Your task to perform on an android device: Open privacy settings Image 0: 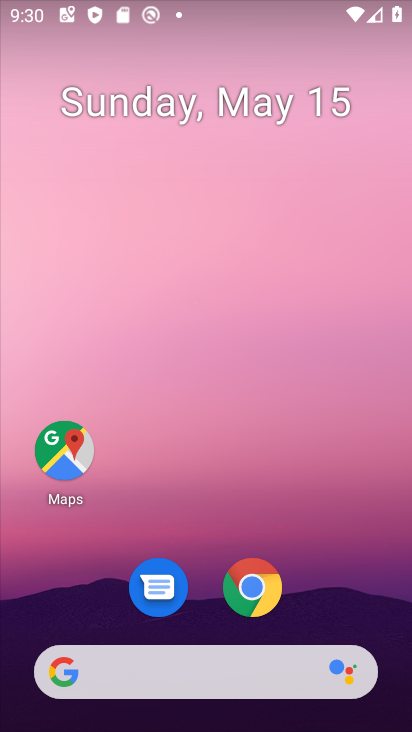
Step 0: drag from (387, 650) to (299, 46)
Your task to perform on an android device: Open privacy settings Image 1: 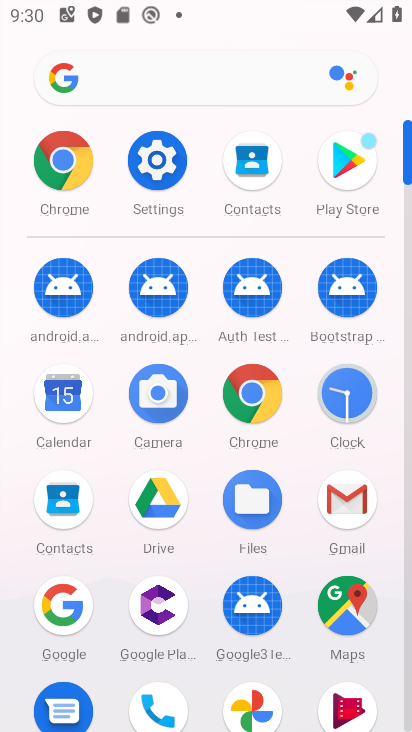
Step 1: click (153, 175)
Your task to perform on an android device: Open privacy settings Image 2: 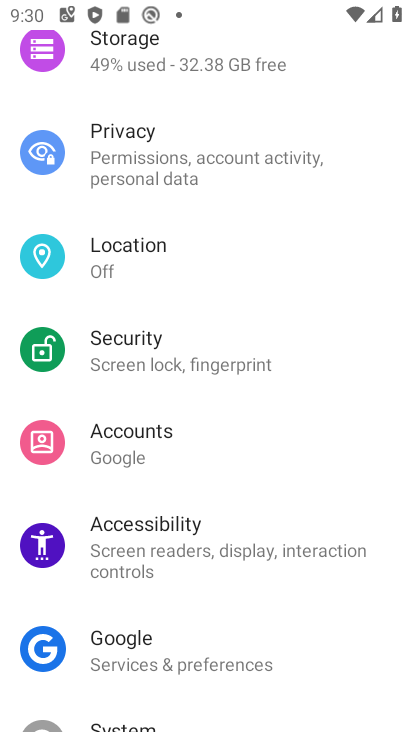
Step 2: click (151, 160)
Your task to perform on an android device: Open privacy settings Image 3: 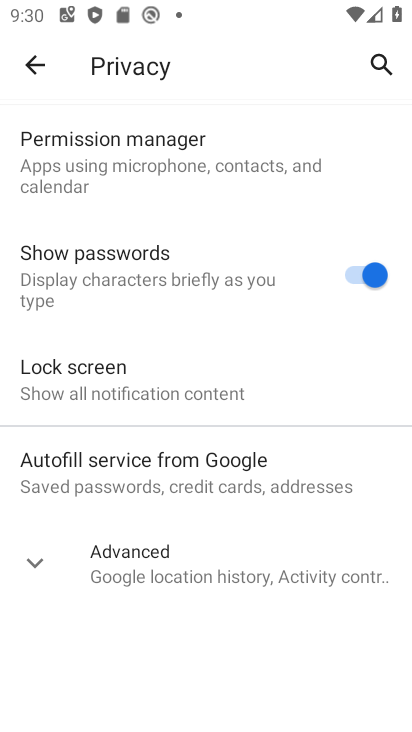
Step 3: task complete